Your task to perform on an android device: allow cookies in the chrome app Image 0: 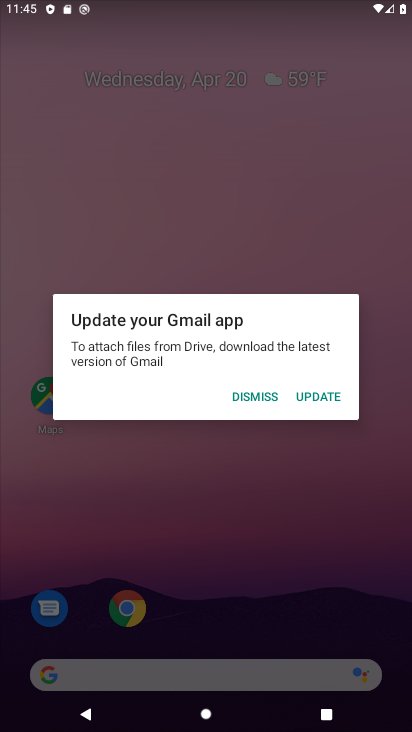
Step 0: press home button
Your task to perform on an android device: allow cookies in the chrome app Image 1: 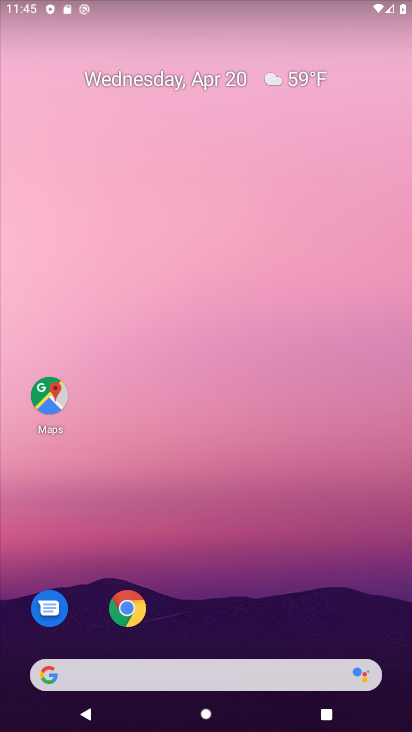
Step 1: drag from (237, 610) to (251, 114)
Your task to perform on an android device: allow cookies in the chrome app Image 2: 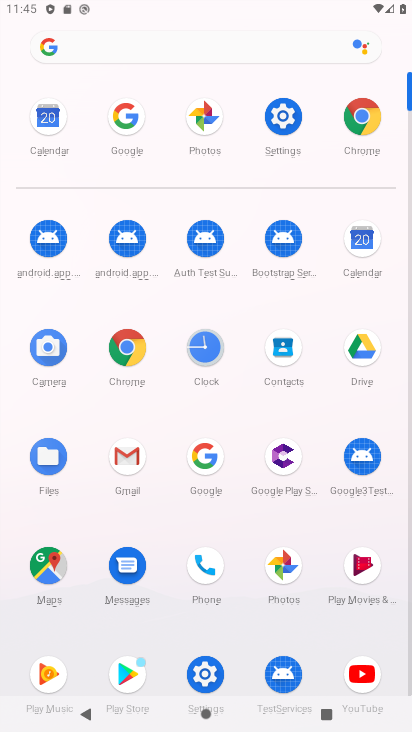
Step 2: click (128, 348)
Your task to perform on an android device: allow cookies in the chrome app Image 3: 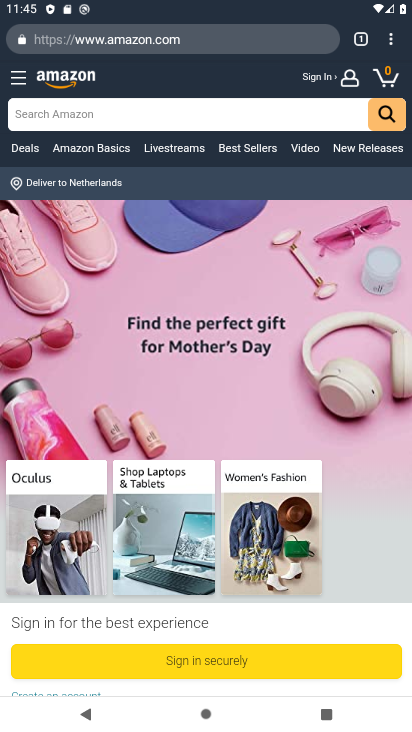
Step 3: click (389, 37)
Your task to perform on an android device: allow cookies in the chrome app Image 4: 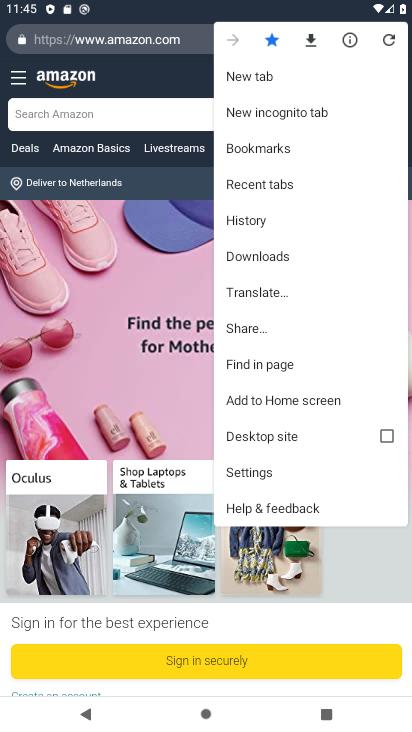
Step 4: click (266, 474)
Your task to perform on an android device: allow cookies in the chrome app Image 5: 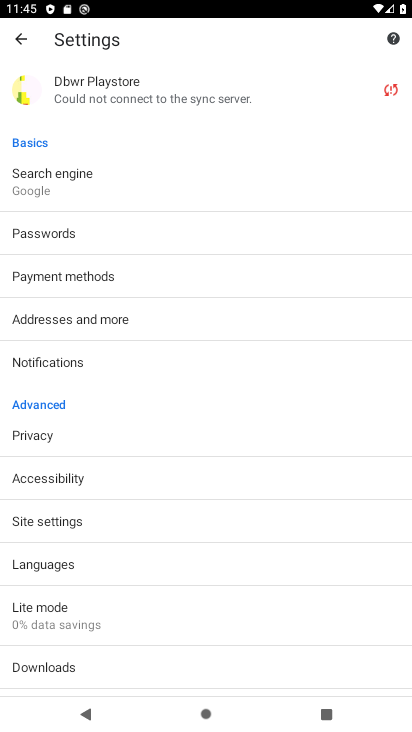
Step 5: click (97, 516)
Your task to perform on an android device: allow cookies in the chrome app Image 6: 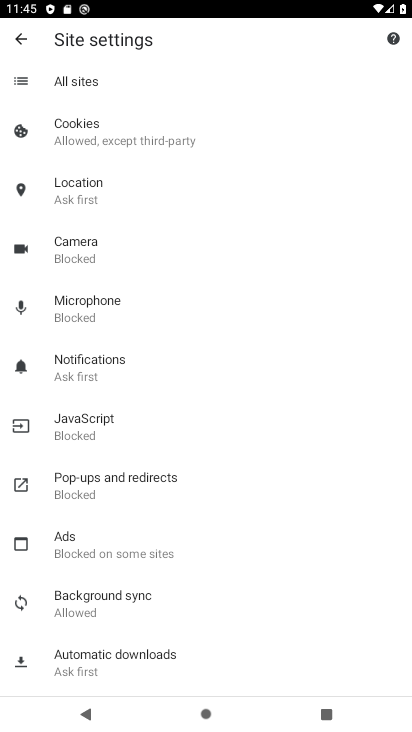
Step 6: click (129, 127)
Your task to perform on an android device: allow cookies in the chrome app Image 7: 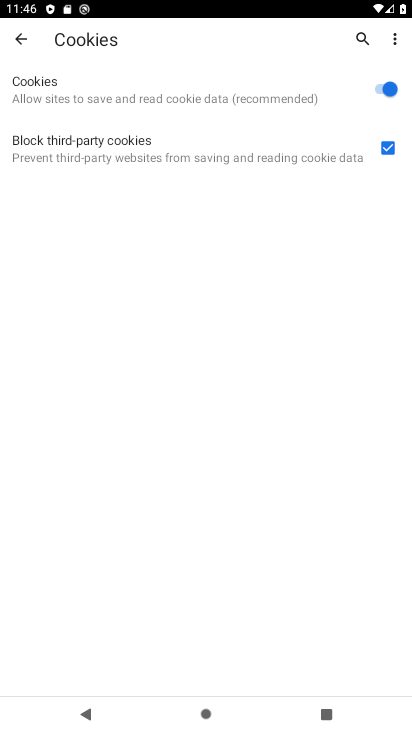
Step 7: task complete